Your task to perform on an android device: toggle notification dots Image 0: 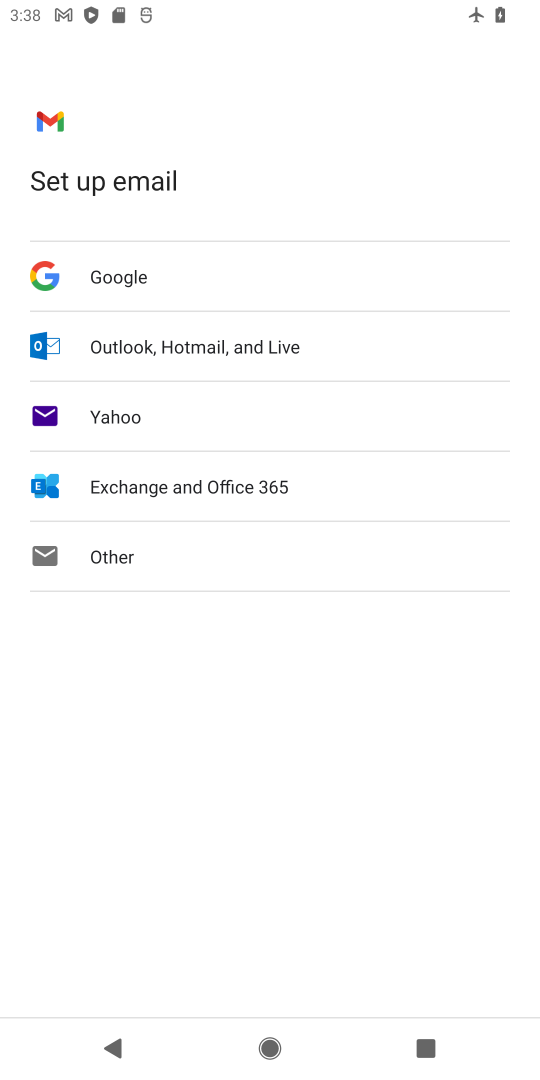
Step 0: press home button
Your task to perform on an android device: toggle notification dots Image 1: 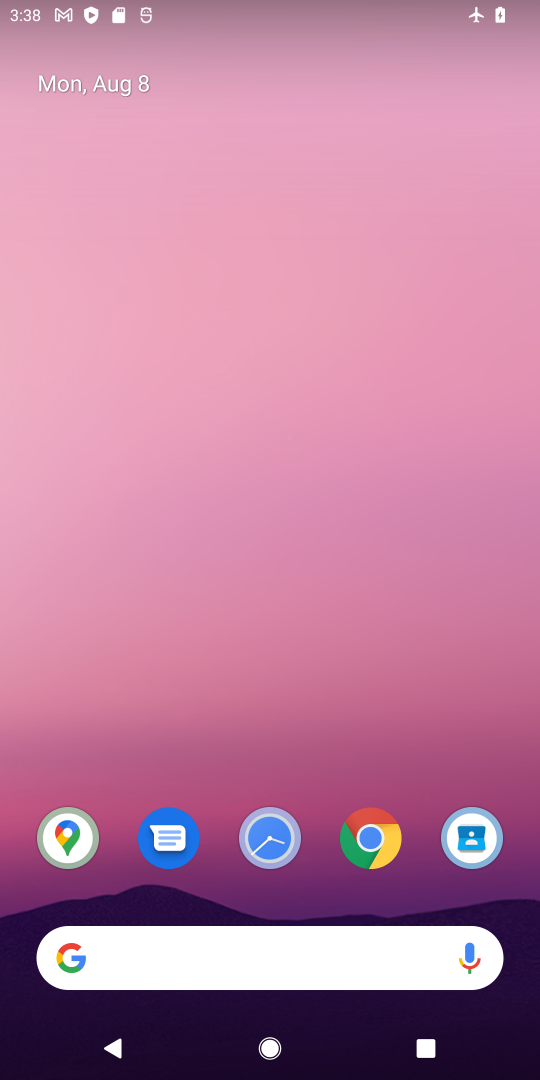
Step 1: drag from (217, 952) to (240, 249)
Your task to perform on an android device: toggle notification dots Image 2: 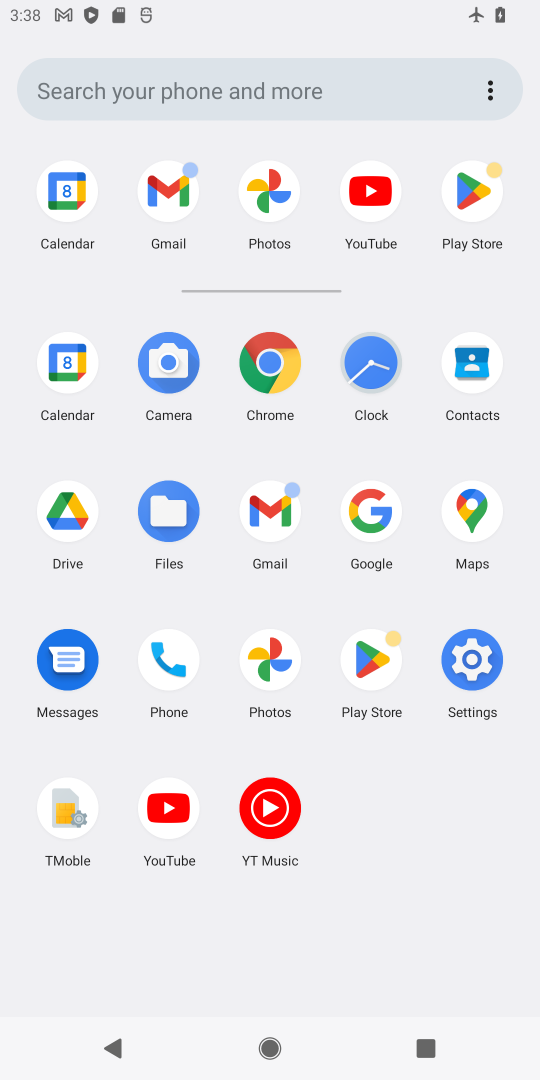
Step 2: click (469, 664)
Your task to perform on an android device: toggle notification dots Image 3: 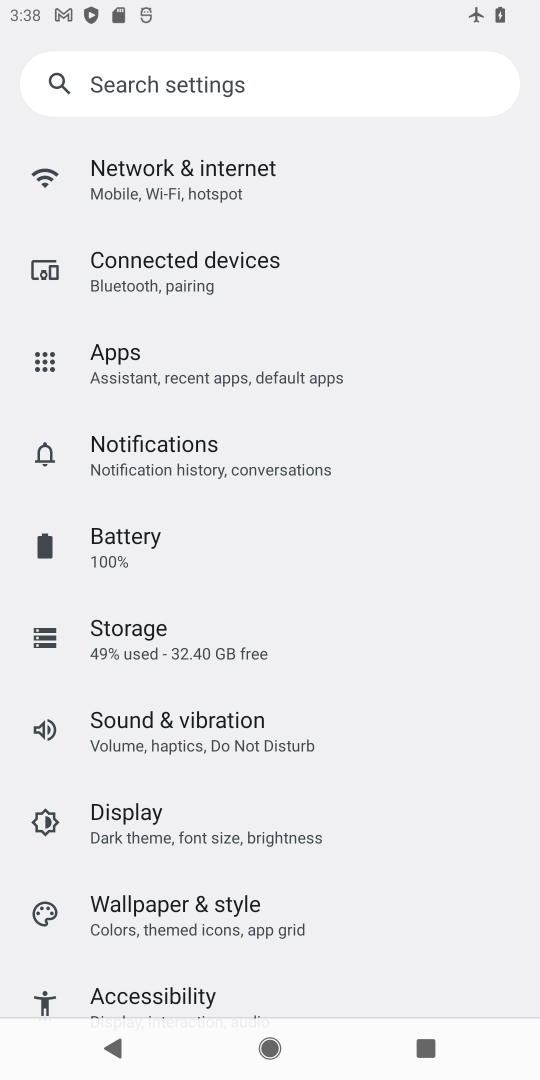
Step 3: click (181, 451)
Your task to perform on an android device: toggle notification dots Image 4: 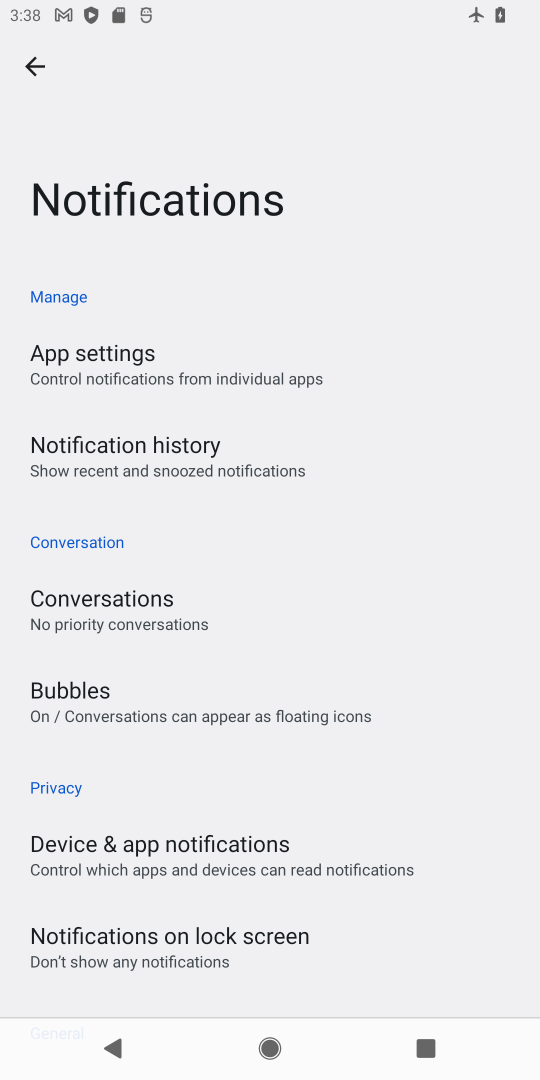
Step 4: drag from (176, 888) to (195, 725)
Your task to perform on an android device: toggle notification dots Image 5: 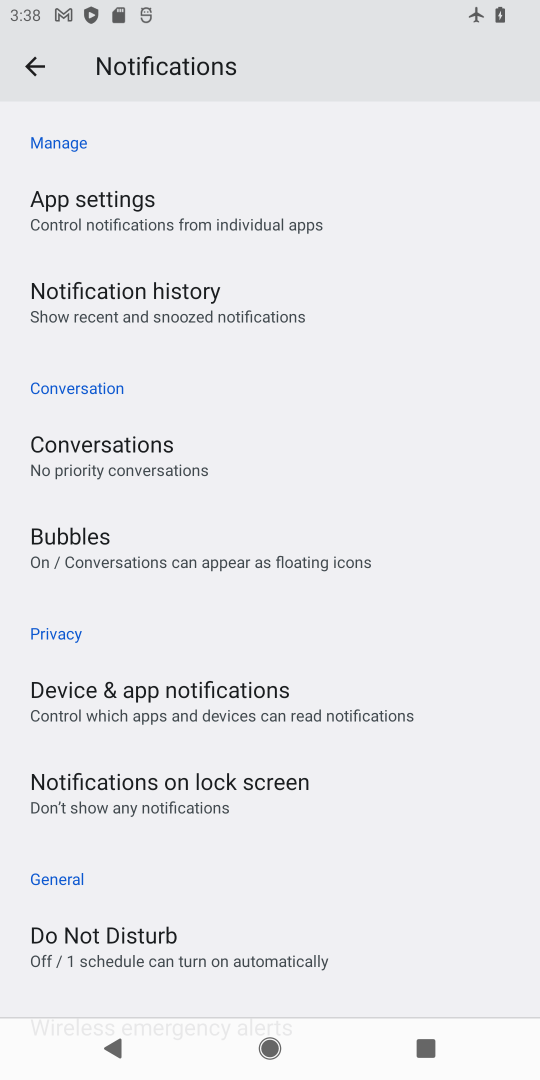
Step 5: drag from (168, 863) to (311, 675)
Your task to perform on an android device: toggle notification dots Image 6: 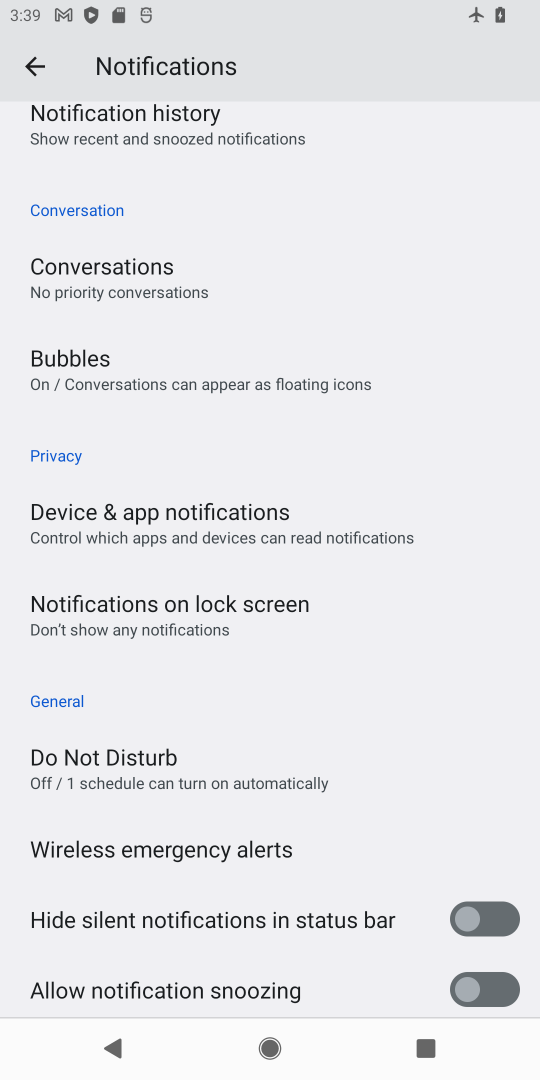
Step 6: drag from (238, 939) to (382, 748)
Your task to perform on an android device: toggle notification dots Image 7: 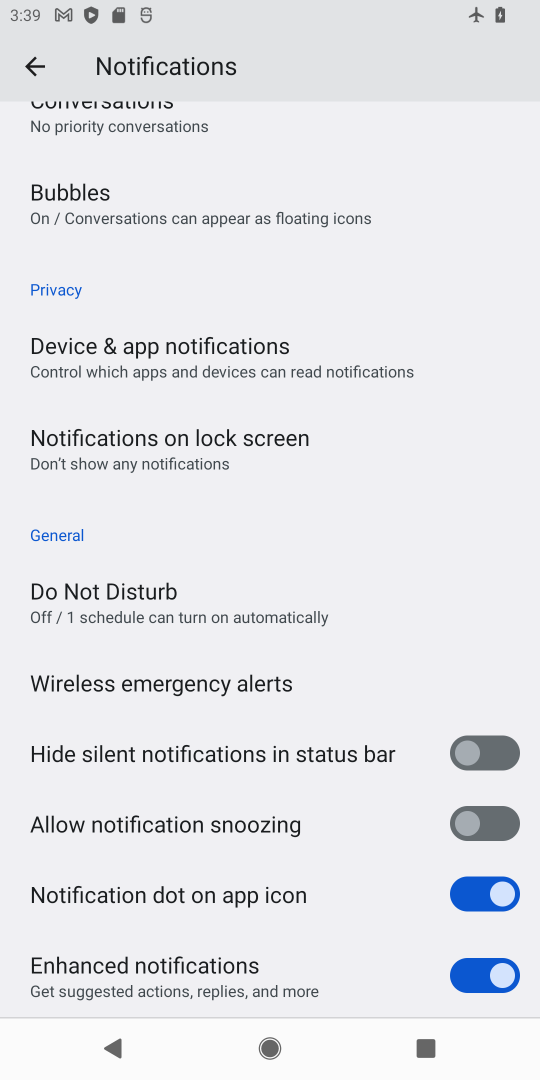
Step 7: click (460, 907)
Your task to perform on an android device: toggle notification dots Image 8: 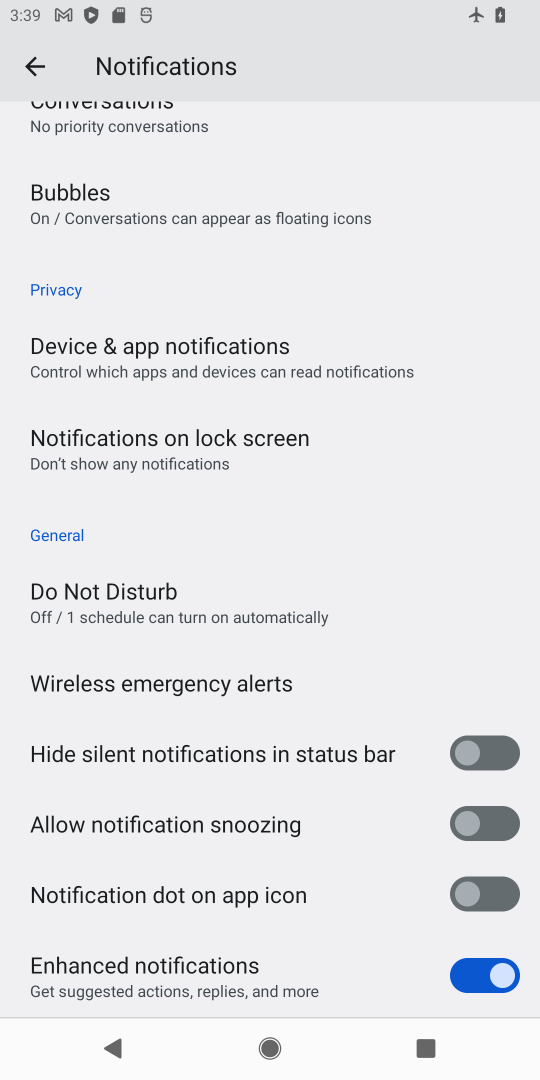
Step 8: task complete